Your task to perform on an android device: Open maps Image 0: 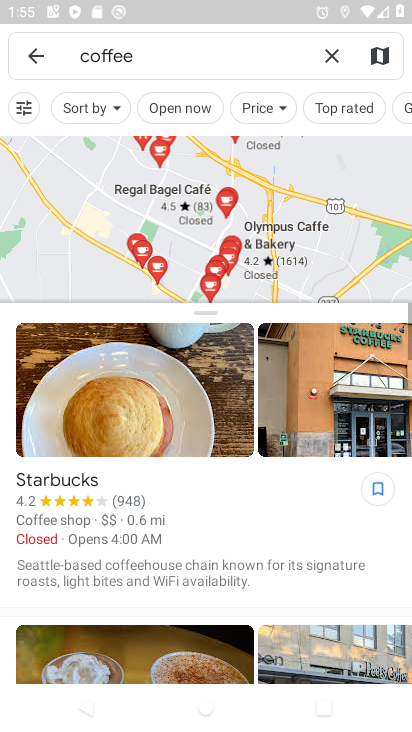
Step 0: press home button
Your task to perform on an android device: Open maps Image 1: 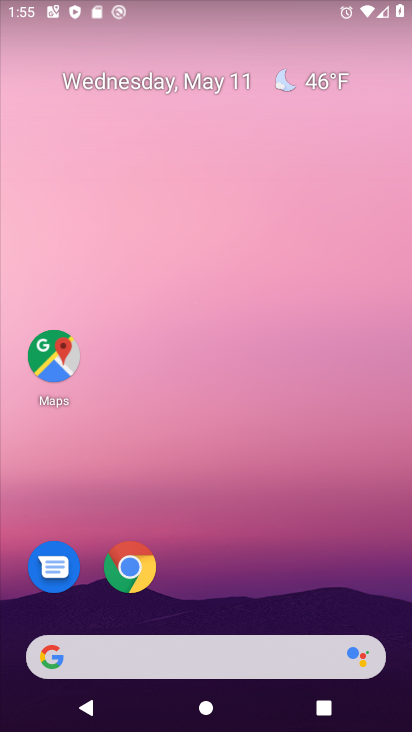
Step 1: click (54, 368)
Your task to perform on an android device: Open maps Image 2: 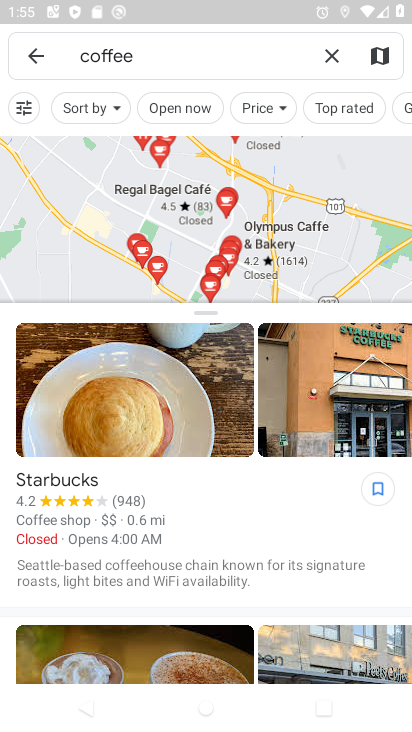
Step 2: task complete